Your task to perform on an android device: see tabs open on other devices in the chrome app Image 0: 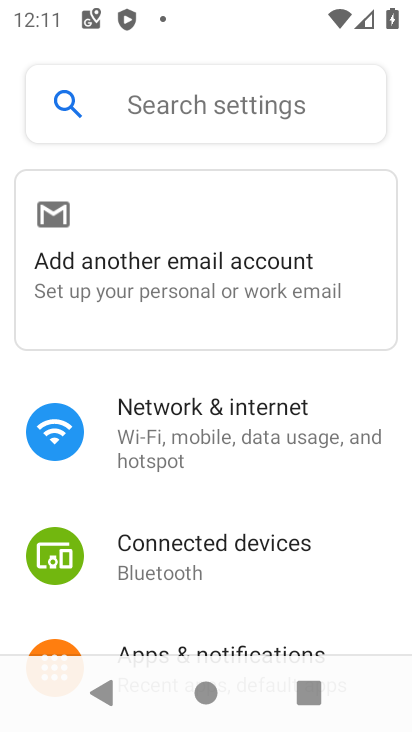
Step 0: press back button
Your task to perform on an android device: see tabs open on other devices in the chrome app Image 1: 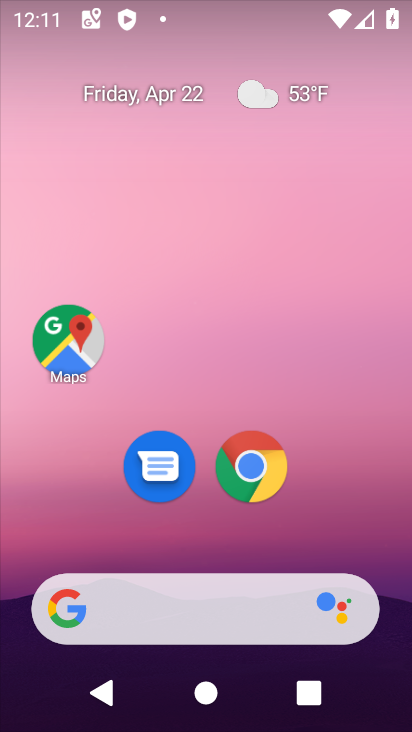
Step 1: click (253, 464)
Your task to perform on an android device: see tabs open on other devices in the chrome app Image 2: 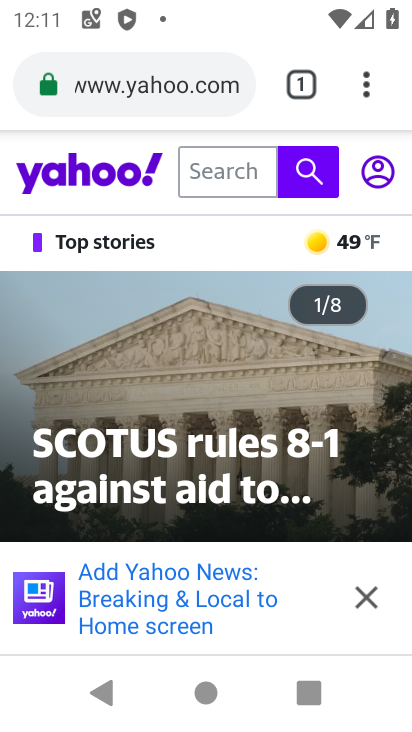
Step 2: task complete